Your task to perform on an android device: Turn on the flashlight Image 0: 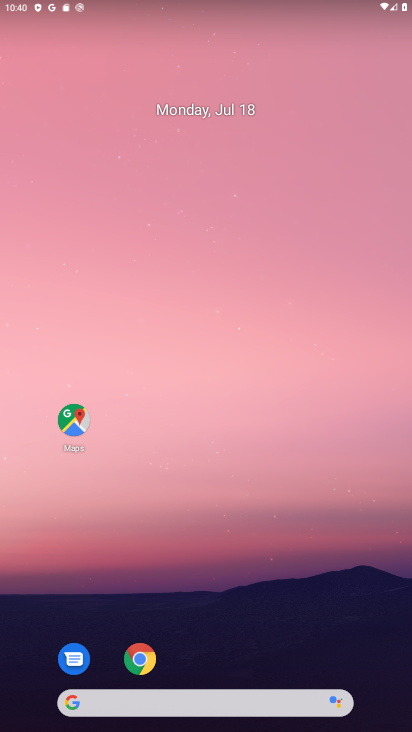
Step 0: press home button
Your task to perform on an android device: Turn on the flashlight Image 1: 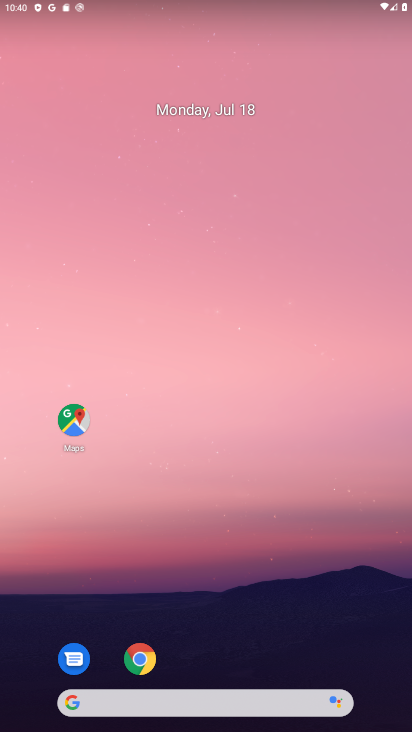
Step 1: task complete